Your task to perform on an android device: Open Youtube and go to "Your channel" Image 0: 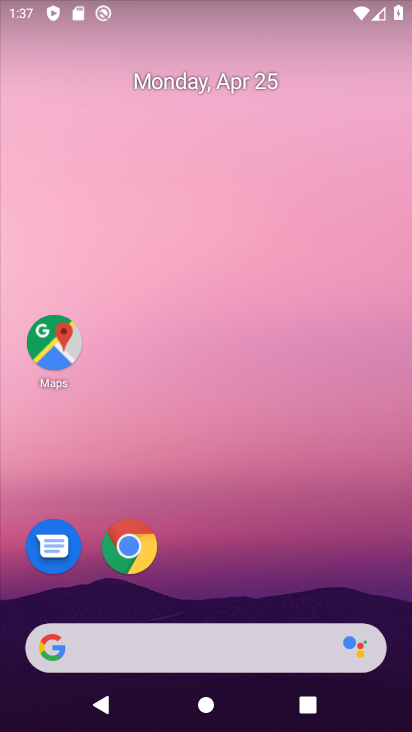
Step 0: drag from (207, 572) to (305, 39)
Your task to perform on an android device: Open Youtube and go to "Your channel" Image 1: 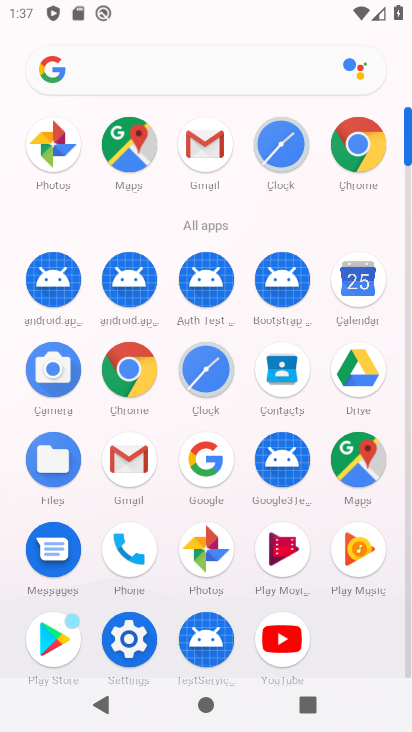
Step 1: click (296, 638)
Your task to perform on an android device: Open Youtube and go to "Your channel" Image 2: 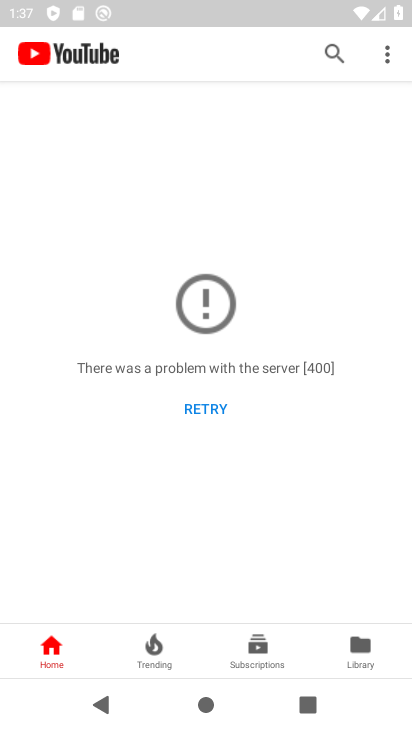
Step 2: click (363, 639)
Your task to perform on an android device: Open Youtube and go to "Your channel" Image 3: 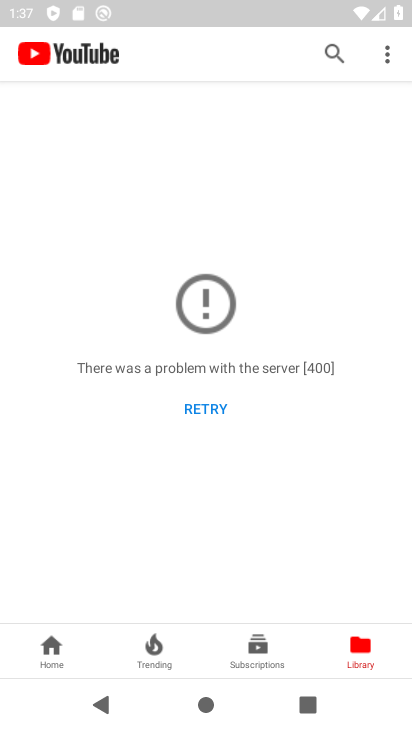
Step 3: click (390, 58)
Your task to perform on an android device: Open Youtube and go to "Your channel" Image 4: 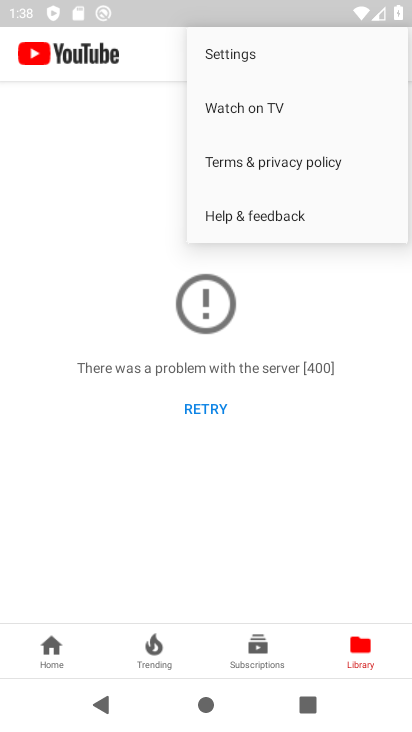
Step 4: task complete